Your task to perform on an android device: open chrome privacy settings Image 0: 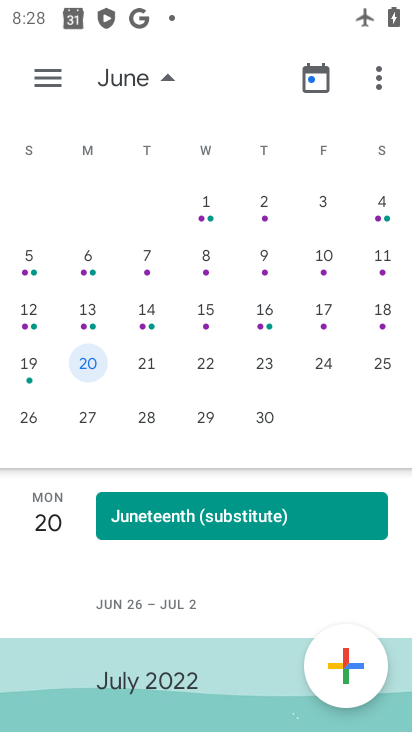
Step 0: press back button
Your task to perform on an android device: open chrome privacy settings Image 1: 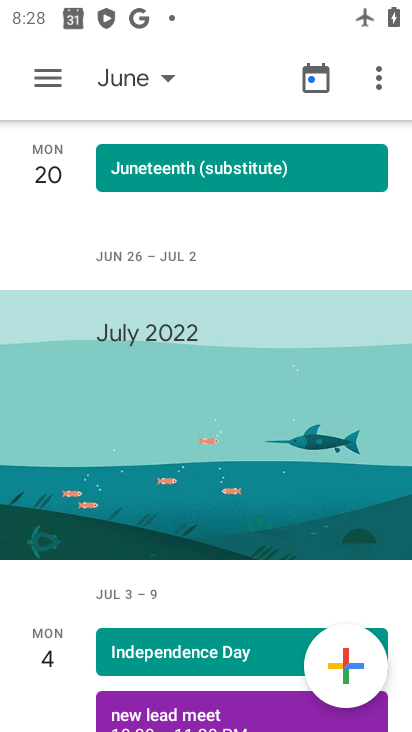
Step 1: press back button
Your task to perform on an android device: open chrome privacy settings Image 2: 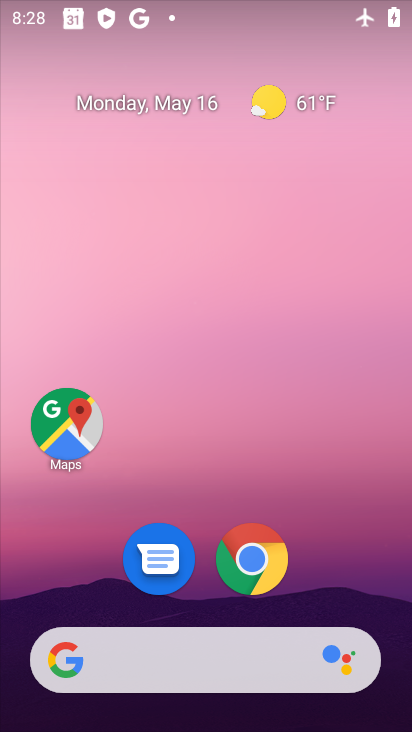
Step 2: click (263, 560)
Your task to perform on an android device: open chrome privacy settings Image 3: 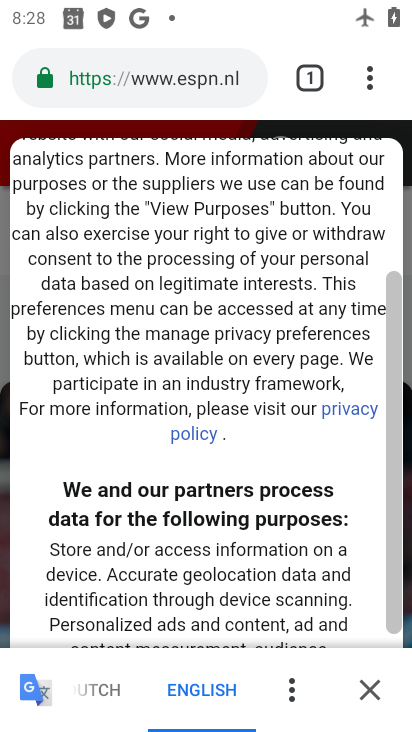
Step 3: drag from (374, 68) to (87, 611)
Your task to perform on an android device: open chrome privacy settings Image 4: 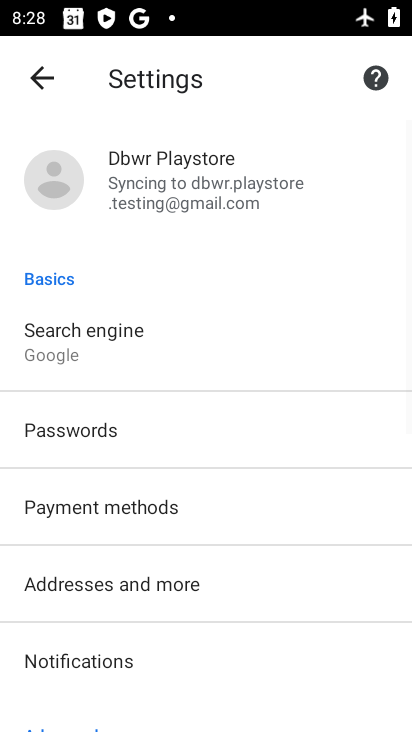
Step 4: drag from (120, 636) to (187, 160)
Your task to perform on an android device: open chrome privacy settings Image 5: 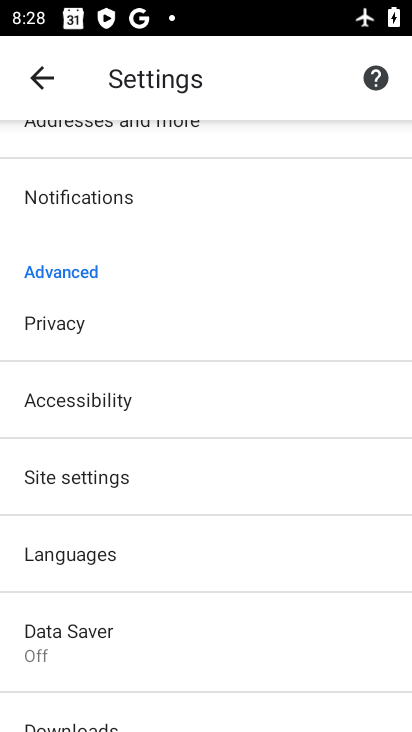
Step 5: click (88, 323)
Your task to perform on an android device: open chrome privacy settings Image 6: 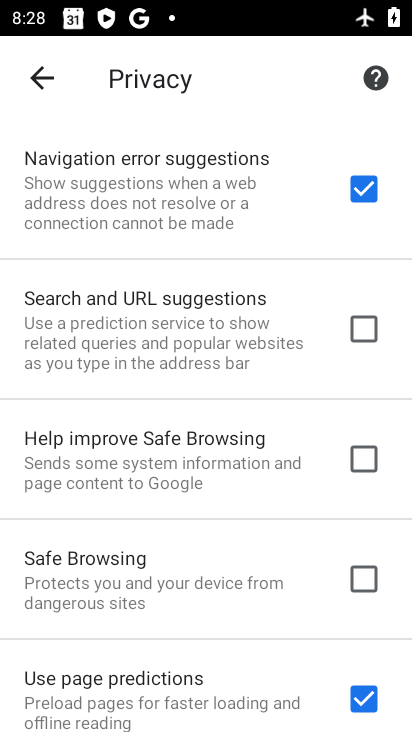
Step 6: task complete